Your task to perform on an android device: Turn off the flashlight Image 0: 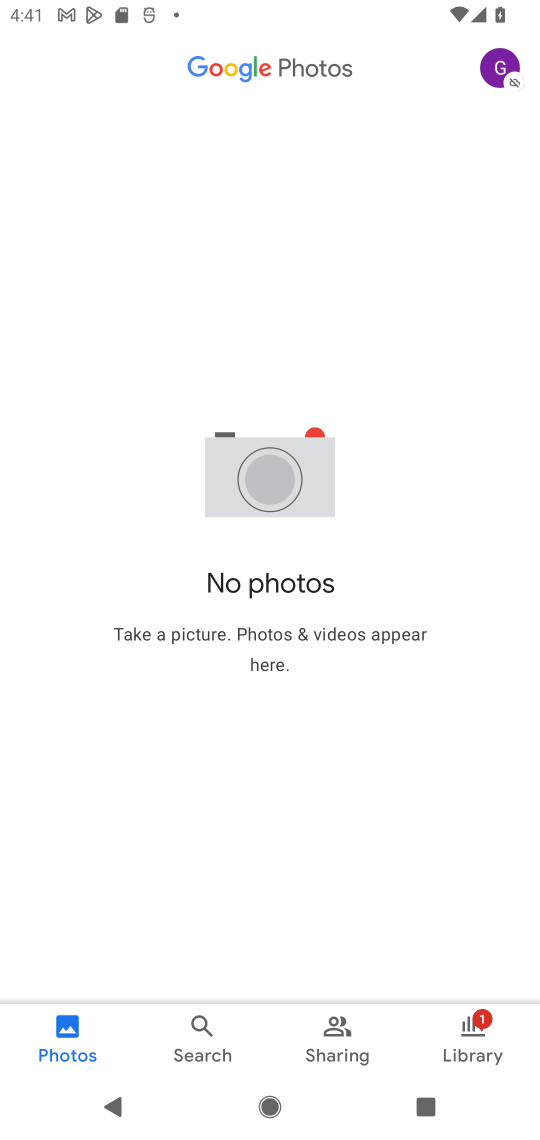
Step 0: task complete